Your task to perform on an android device: Check the weather Image 0: 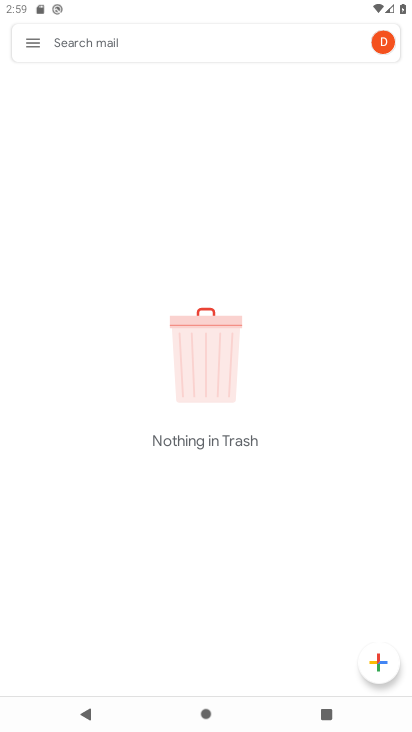
Step 0: press home button
Your task to perform on an android device: Check the weather Image 1: 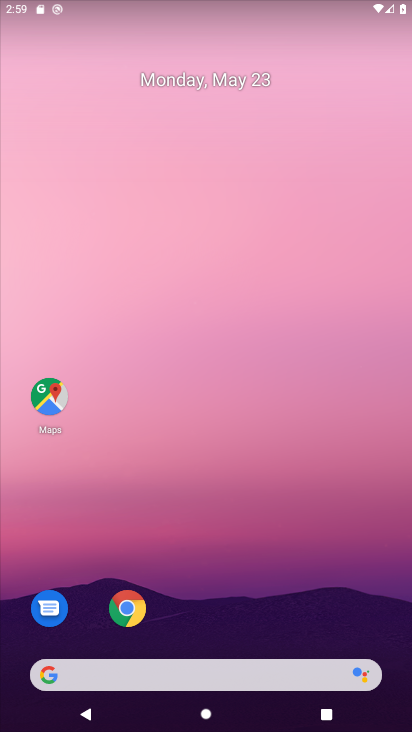
Step 1: click (140, 613)
Your task to perform on an android device: Check the weather Image 2: 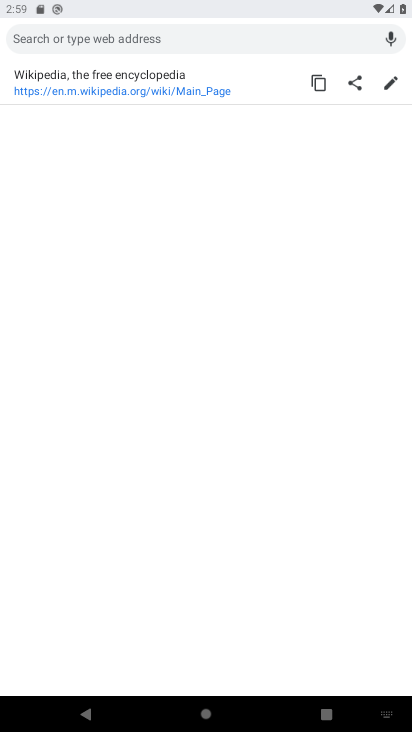
Step 2: click (185, 47)
Your task to perform on an android device: Check the weather Image 3: 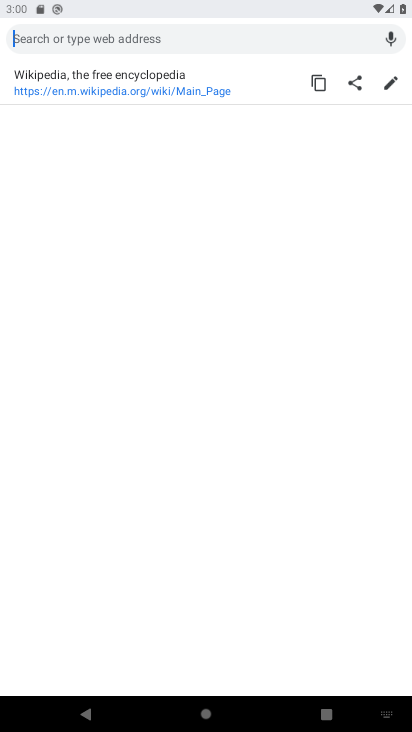
Step 3: type "weather"
Your task to perform on an android device: Check the weather Image 4: 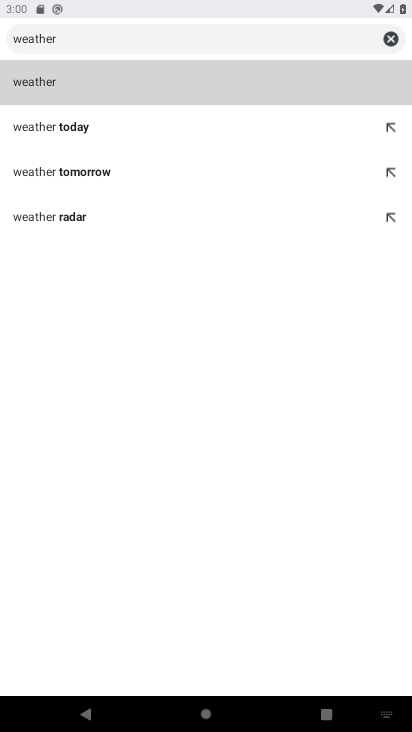
Step 4: click (41, 79)
Your task to perform on an android device: Check the weather Image 5: 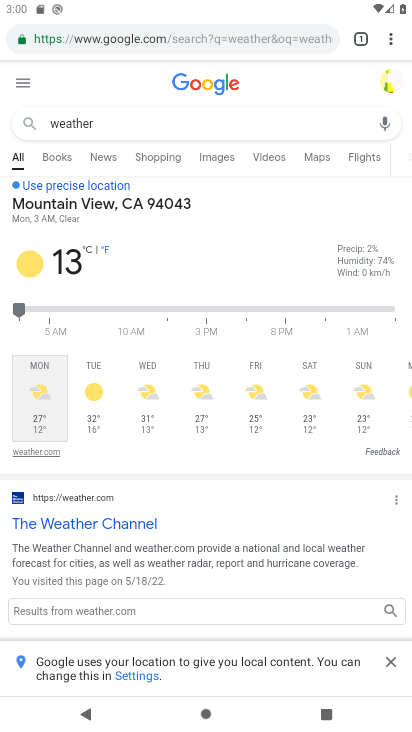
Step 5: task complete